Your task to perform on an android device: turn smart compose on in the gmail app Image 0: 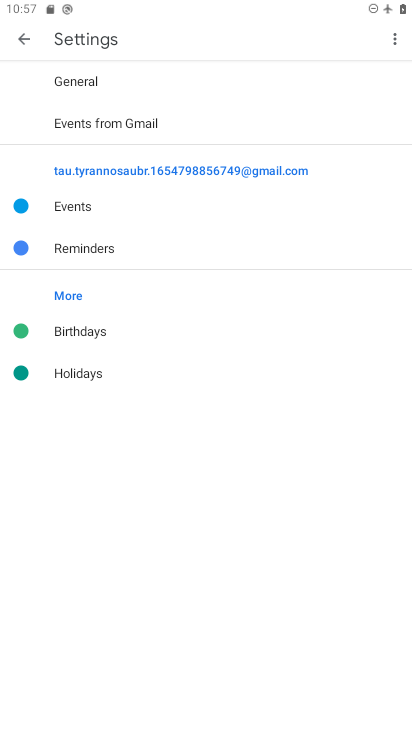
Step 0: press home button
Your task to perform on an android device: turn smart compose on in the gmail app Image 1: 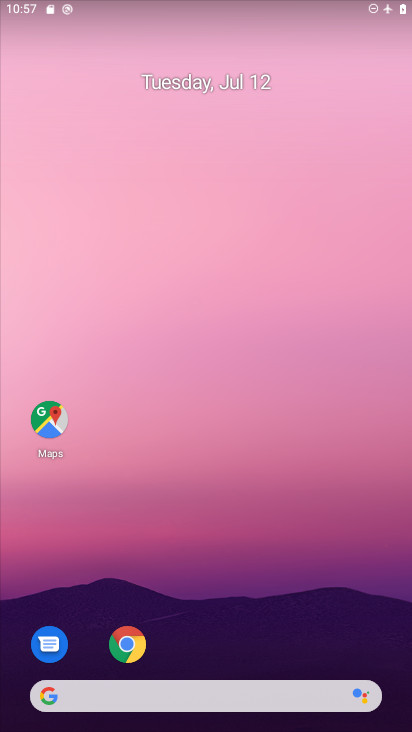
Step 1: drag from (138, 661) to (162, 101)
Your task to perform on an android device: turn smart compose on in the gmail app Image 2: 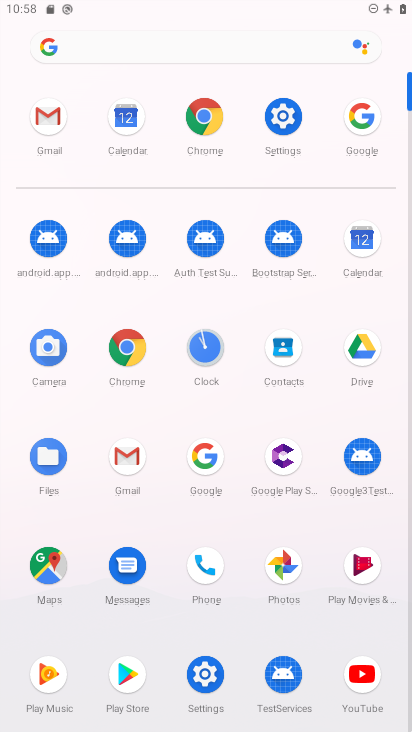
Step 2: click (124, 465)
Your task to perform on an android device: turn smart compose on in the gmail app Image 3: 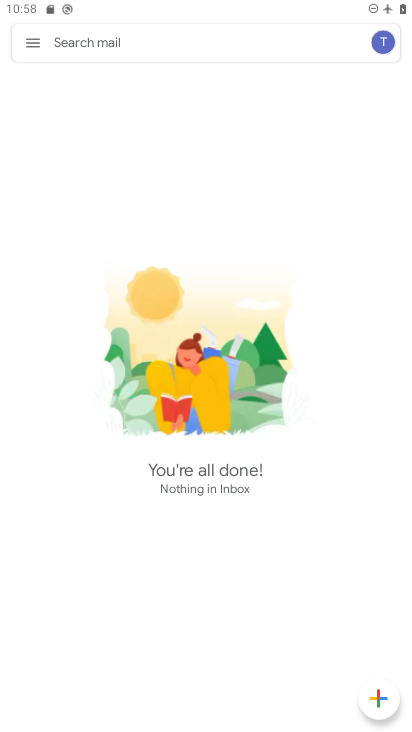
Step 3: click (28, 46)
Your task to perform on an android device: turn smart compose on in the gmail app Image 4: 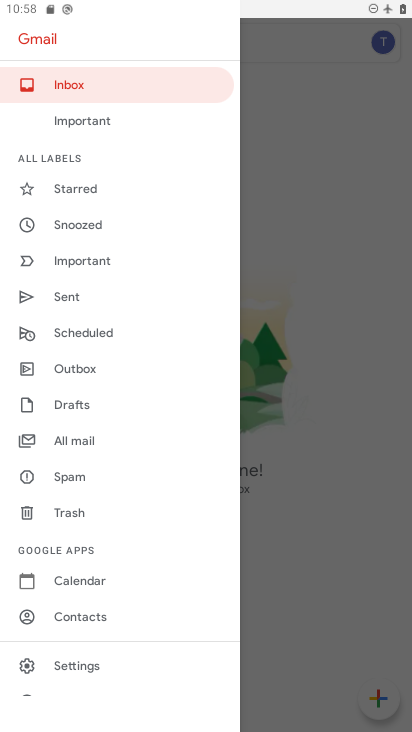
Step 4: click (93, 658)
Your task to perform on an android device: turn smart compose on in the gmail app Image 5: 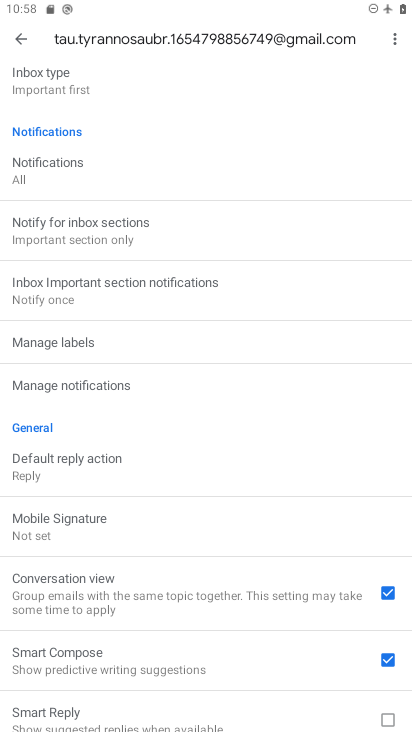
Step 5: click (62, 385)
Your task to perform on an android device: turn smart compose on in the gmail app Image 6: 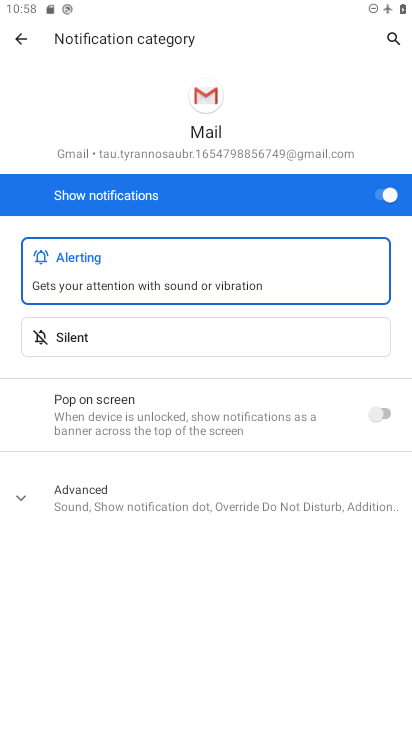
Step 6: click (21, 30)
Your task to perform on an android device: turn smart compose on in the gmail app Image 7: 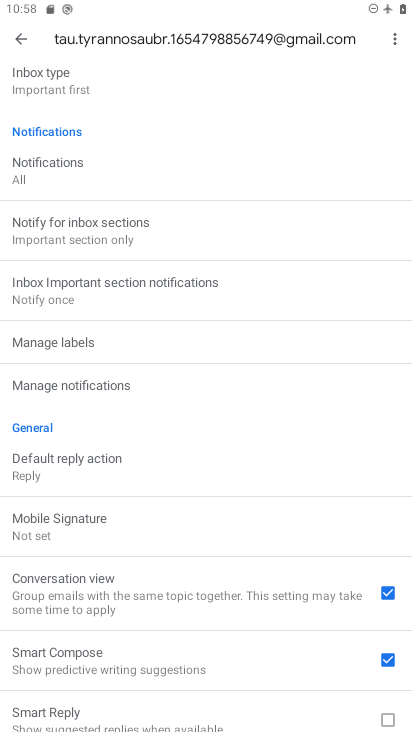
Step 7: drag from (56, 620) to (86, 177)
Your task to perform on an android device: turn smart compose on in the gmail app Image 8: 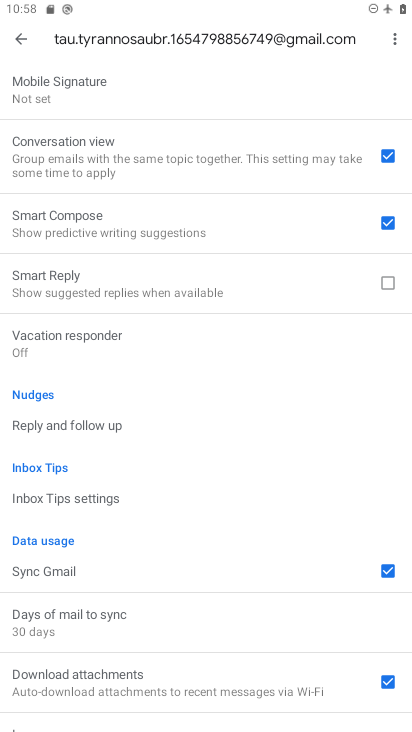
Step 8: drag from (78, 653) to (90, 336)
Your task to perform on an android device: turn smart compose on in the gmail app Image 9: 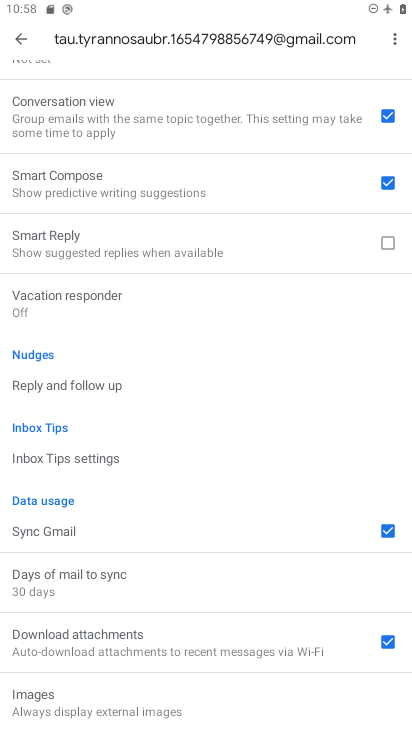
Step 9: click (138, 341)
Your task to perform on an android device: turn smart compose on in the gmail app Image 10: 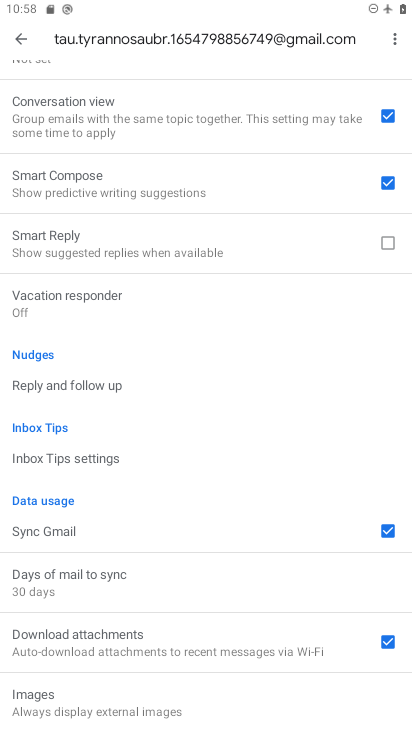
Step 10: task complete